Your task to perform on an android device: toggle improve location accuracy Image 0: 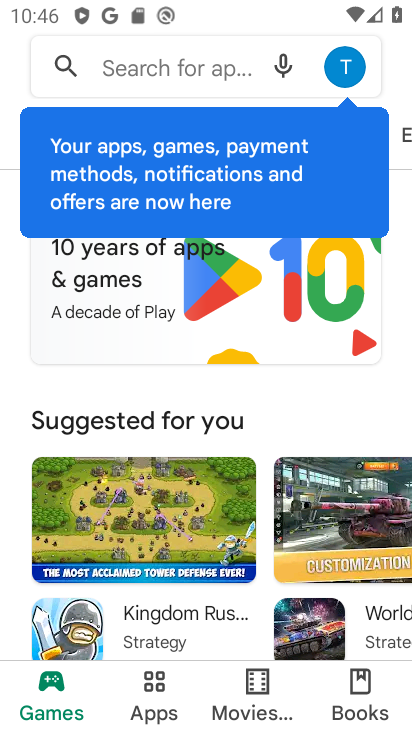
Step 0: press home button
Your task to perform on an android device: toggle improve location accuracy Image 1: 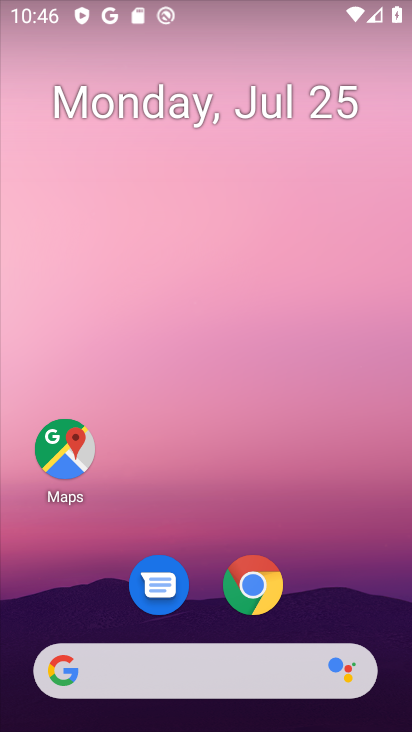
Step 1: drag from (332, 555) to (245, 3)
Your task to perform on an android device: toggle improve location accuracy Image 2: 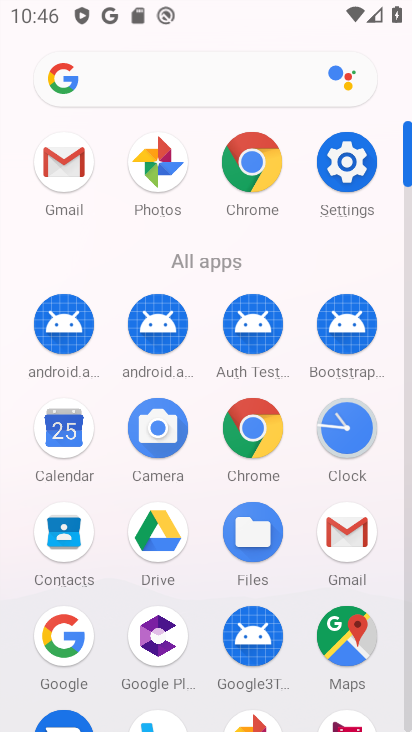
Step 2: click (346, 156)
Your task to perform on an android device: toggle improve location accuracy Image 3: 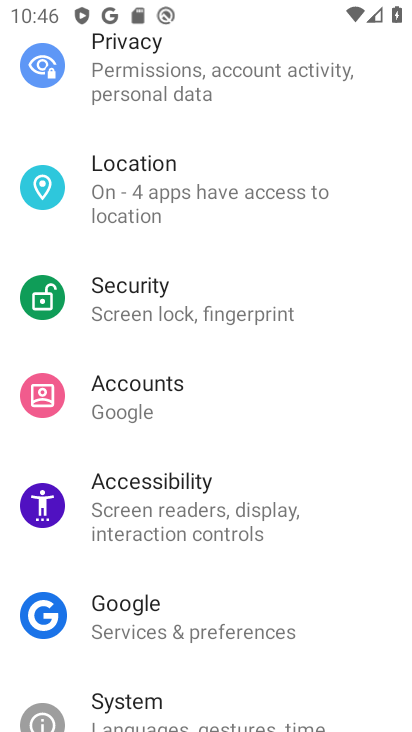
Step 3: click (234, 184)
Your task to perform on an android device: toggle improve location accuracy Image 4: 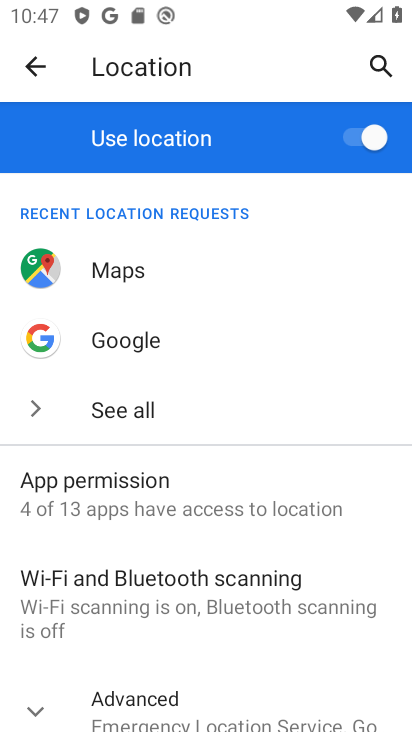
Step 4: click (36, 704)
Your task to perform on an android device: toggle improve location accuracy Image 5: 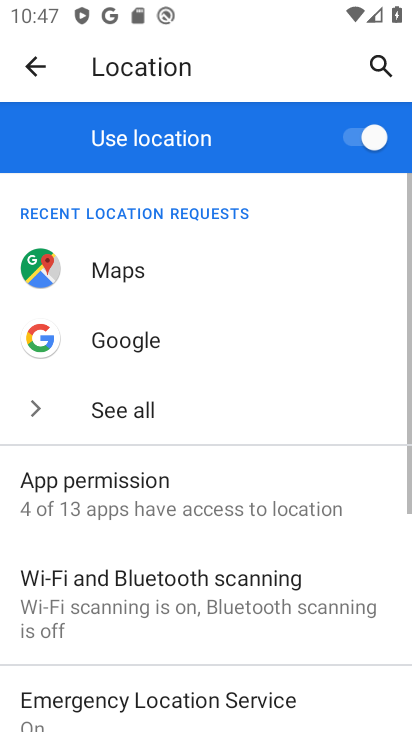
Step 5: drag from (251, 601) to (265, 290)
Your task to perform on an android device: toggle improve location accuracy Image 6: 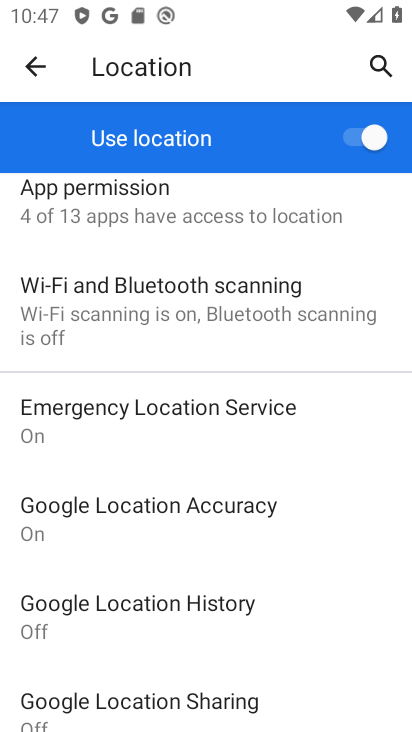
Step 6: click (216, 523)
Your task to perform on an android device: toggle improve location accuracy Image 7: 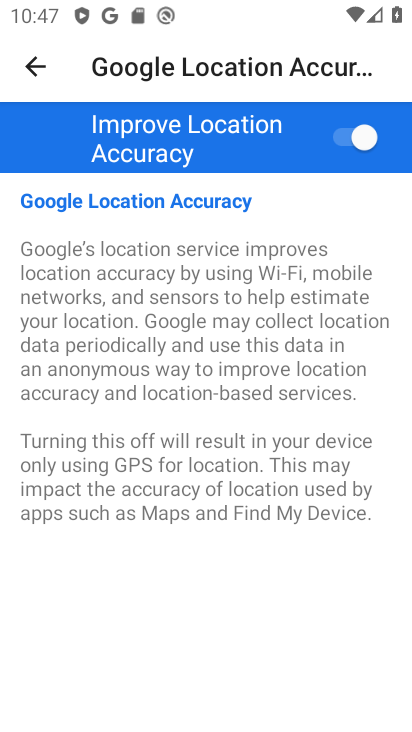
Step 7: click (363, 131)
Your task to perform on an android device: toggle improve location accuracy Image 8: 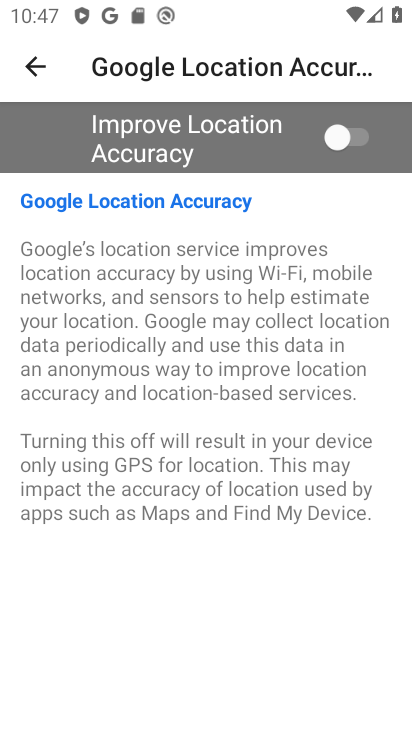
Step 8: task complete